Your task to perform on an android device: Open privacy settings Image 0: 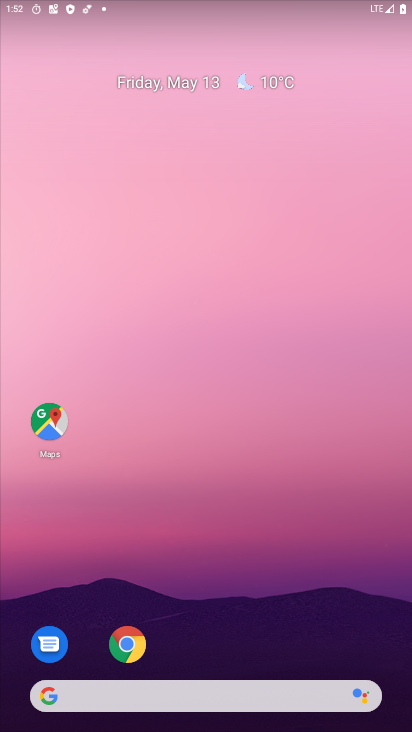
Step 0: drag from (257, 649) to (298, 0)
Your task to perform on an android device: Open privacy settings Image 1: 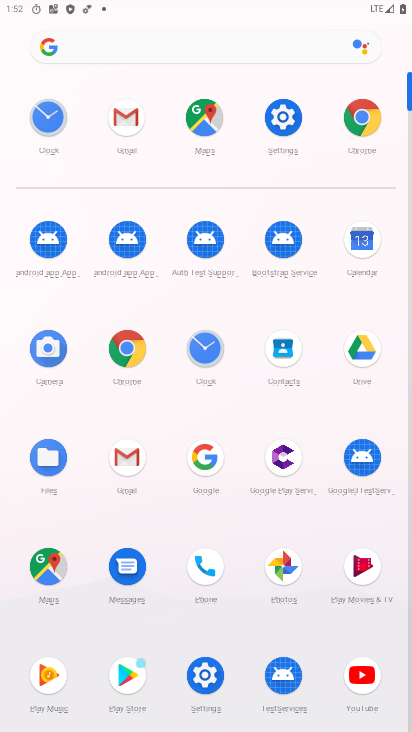
Step 1: click (282, 122)
Your task to perform on an android device: Open privacy settings Image 2: 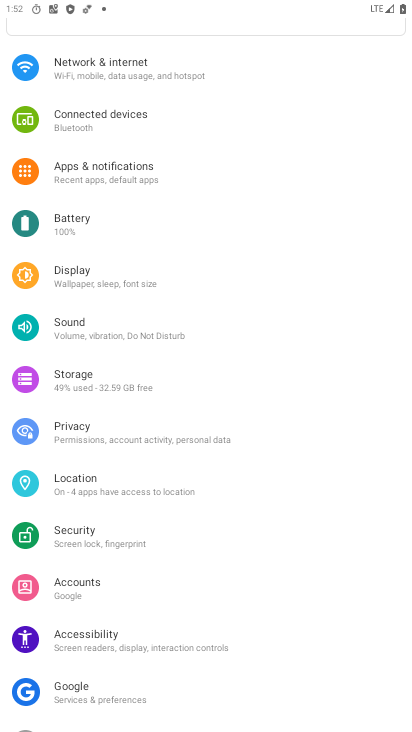
Step 2: click (90, 440)
Your task to perform on an android device: Open privacy settings Image 3: 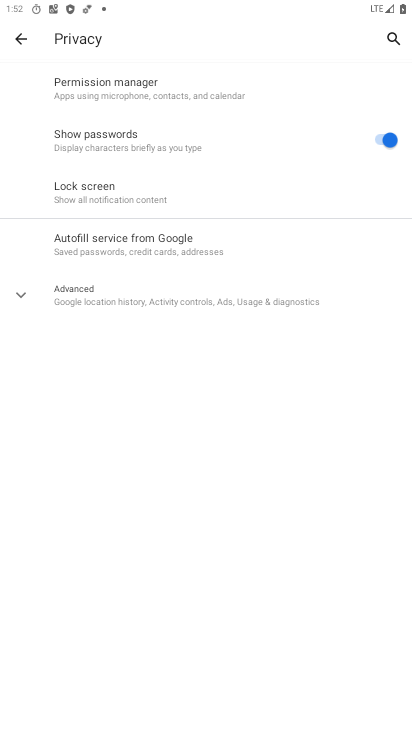
Step 3: task complete